Your task to perform on an android device: Open the calendar app, open the side menu, and click the "Day" option Image 0: 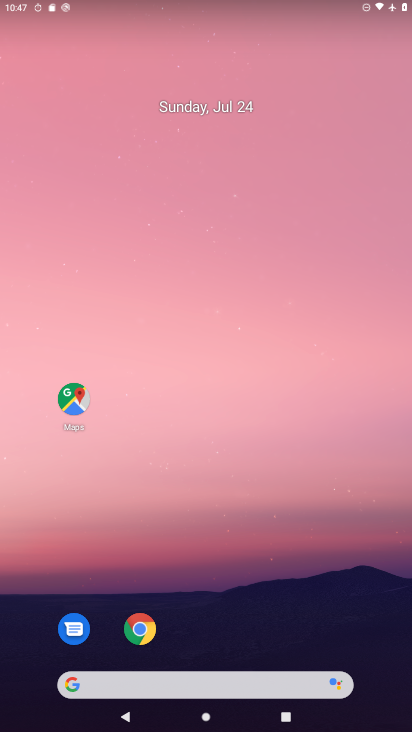
Step 0: drag from (239, 622) to (334, 57)
Your task to perform on an android device: Open the calendar app, open the side menu, and click the "Day" option Image 1: 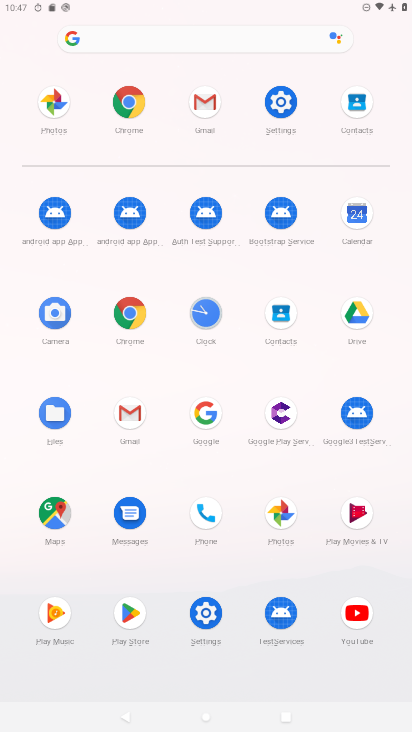
Step 1: click (351, 228)
Your task to perform on an android device: Open the calendar app, open the side menu, and click the "Day" option Image 2: 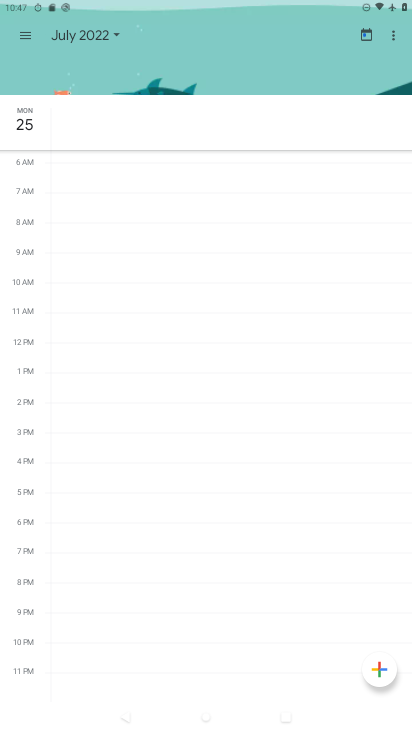
Step 2: click (25, 24)
Your task to perform on an android device: Open the calendar app, open the side menu, and click the "Day" option Image 3: 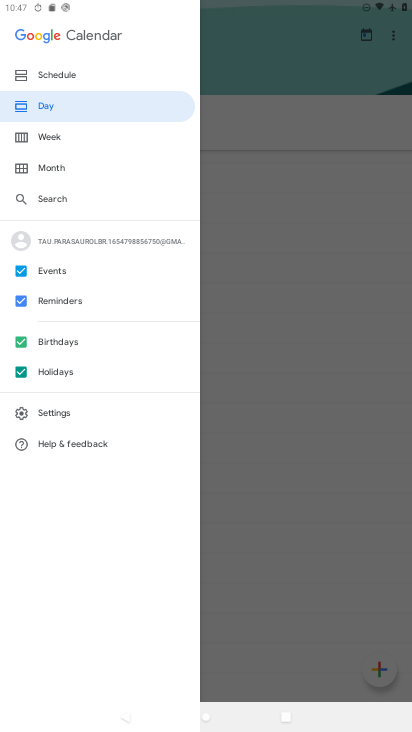
Step 3: click (288, 369)
Your task to perform on an android device: Open the calendar app, open the side menu, and click the "Day" option Image 4: 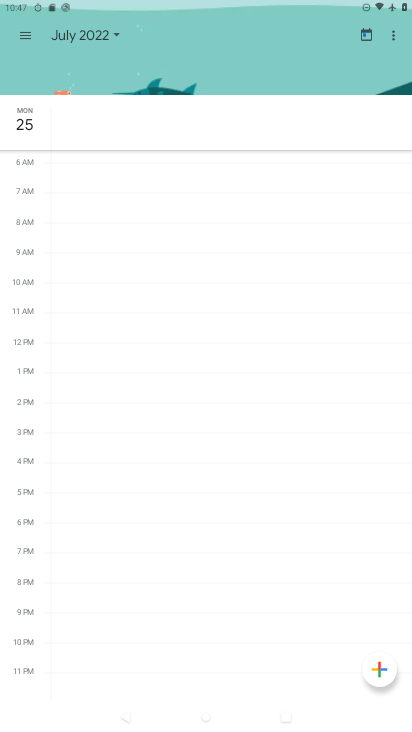
Step 4: task complete